Your task to perform on an android device: Open internet settings Image 0: 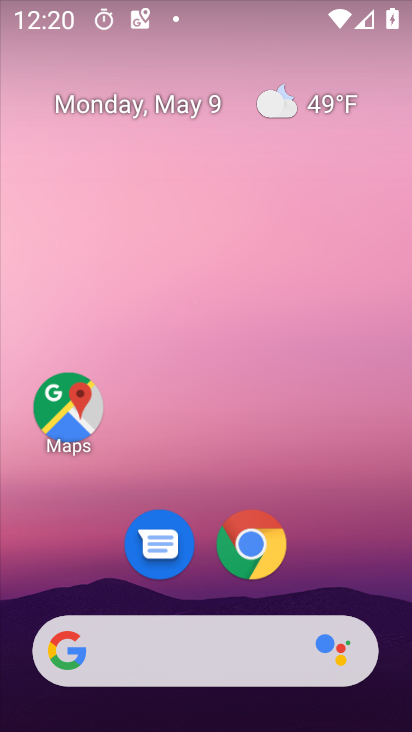
Step 0: drag from (289, 611) to (242, 0)
Your task to perform on an android device: Open internet settings Image 1: 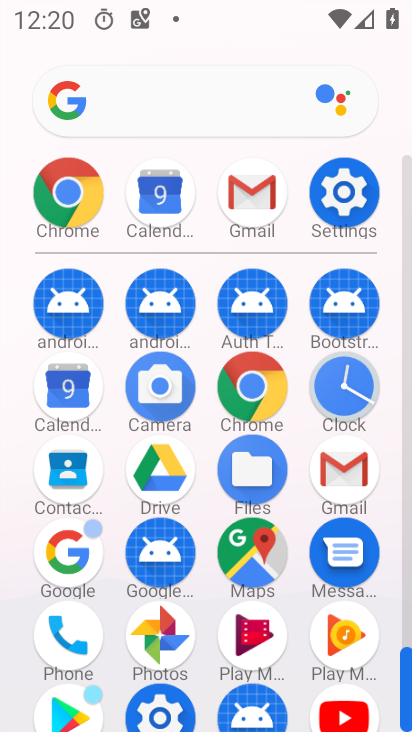
Step 1: click (350, 179)
Your task to perform on an android device: Open internet settings Image 2: 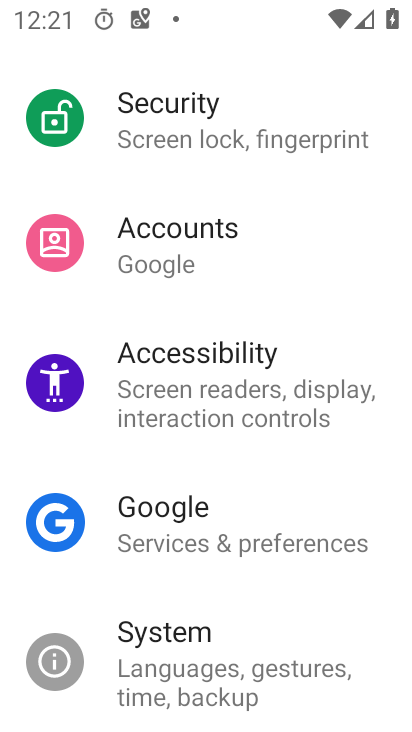
Step 2: drag from (302, 171) to (294, 720)
Your task to perform on an android device: Open internet settings Image 3: 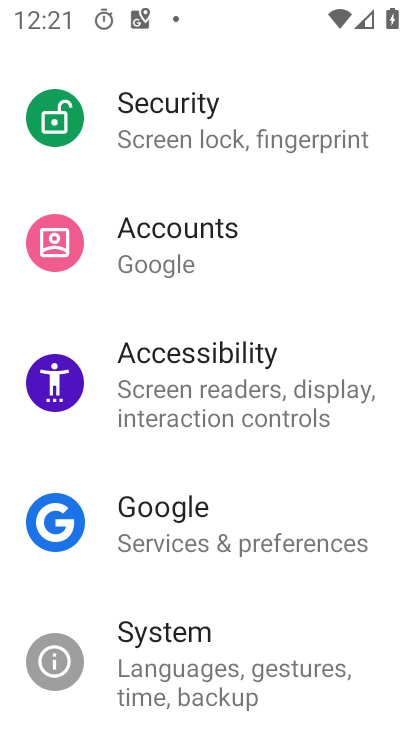
Step 3: drag from (225, 193) to (236, 727)
Your task to perform on an android device: Open internet settings Image 4: 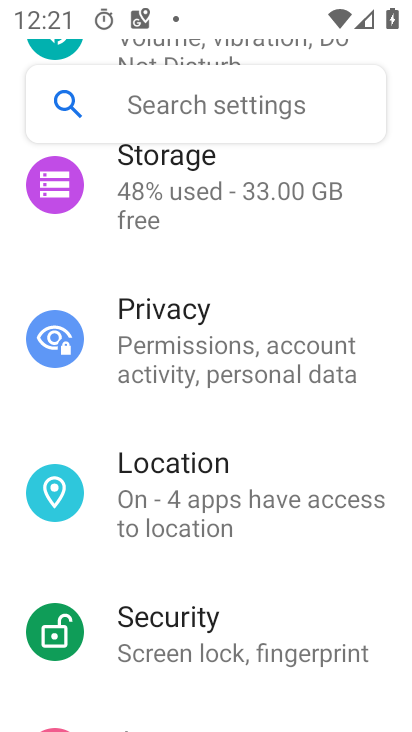
Step 4: drag from (274, 260) to (217, 720)
Your task to perform on an android device: Open internet settings Image 5: 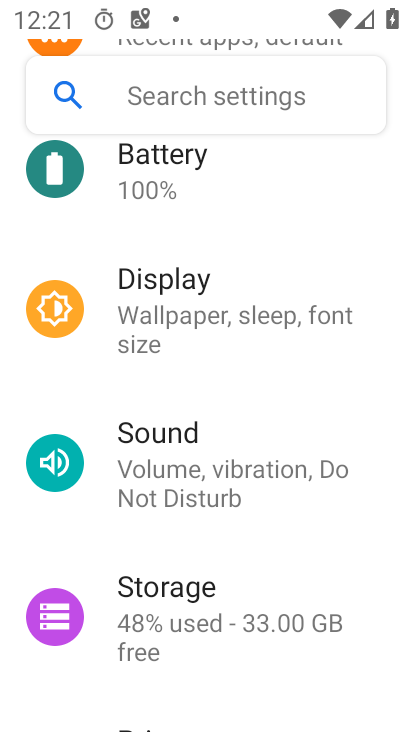
Step 5: drag from (240, 235) to (224, 707)
Your task to perform on an android device: Open internet settings Image 6: 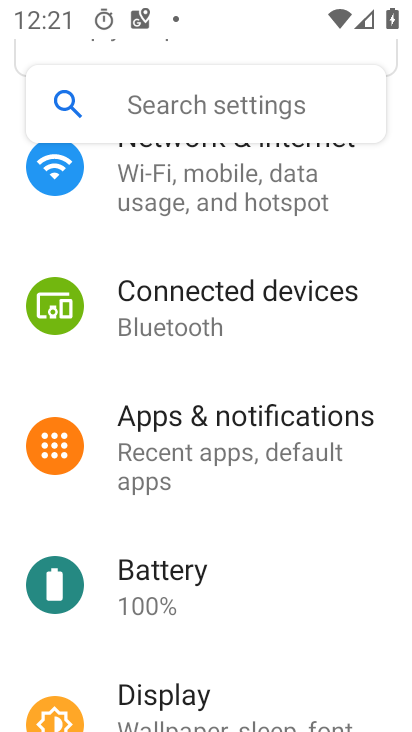
Step 6: click (245, 158)
Your task to perform on an android device: Open internet settings Image 7: 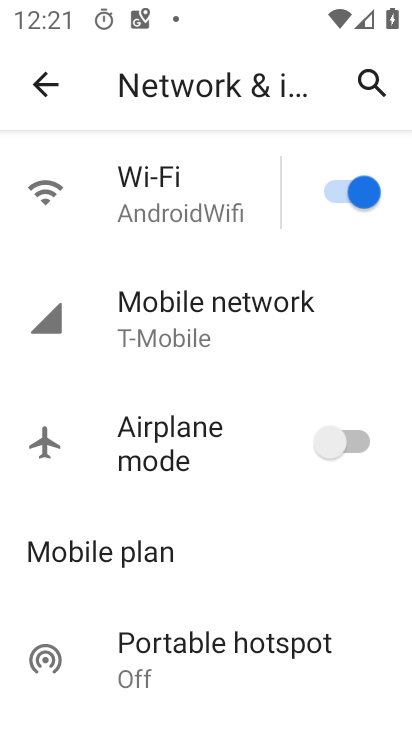
Step 7: click (218, 335)
Your task to perform on an android device: Open internet settings Image 8: 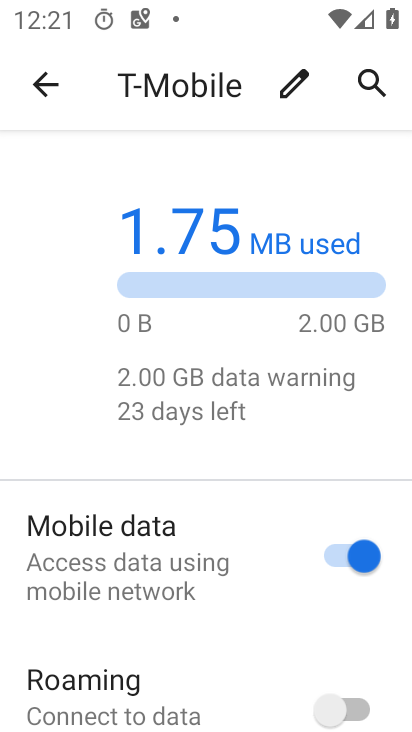
Step 8: task complete